Your task to perform on an android device: Open the stopwatch Image 0: 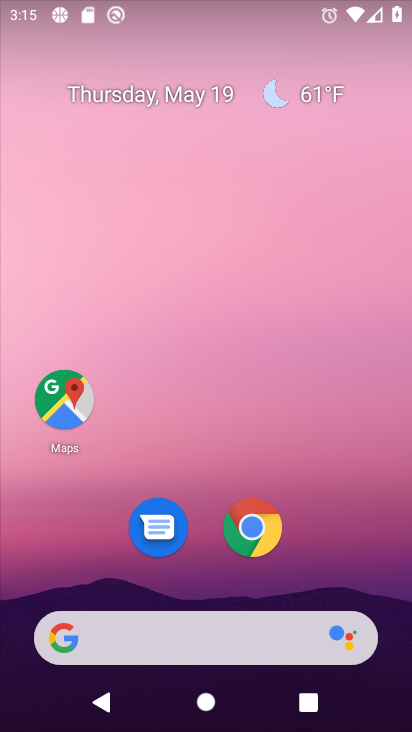
Step 0: drag from (223, 536) to (282, 37)
Your task to perform on an android device: Open the stopwatch Image 1: 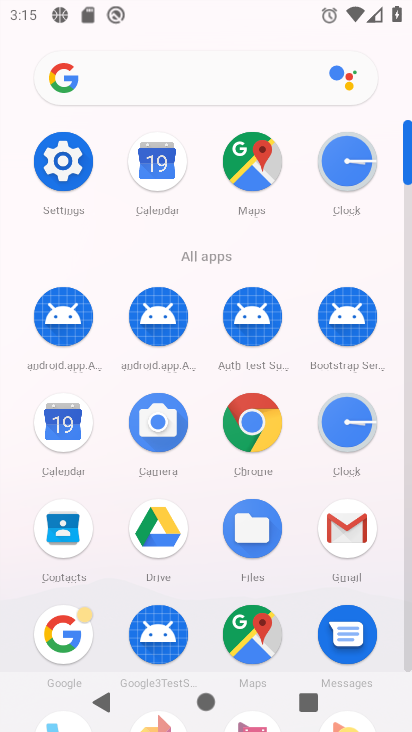
Step 1: click (350, 167)
Your task to perform on an android device: Open the stopwatch Image 2: 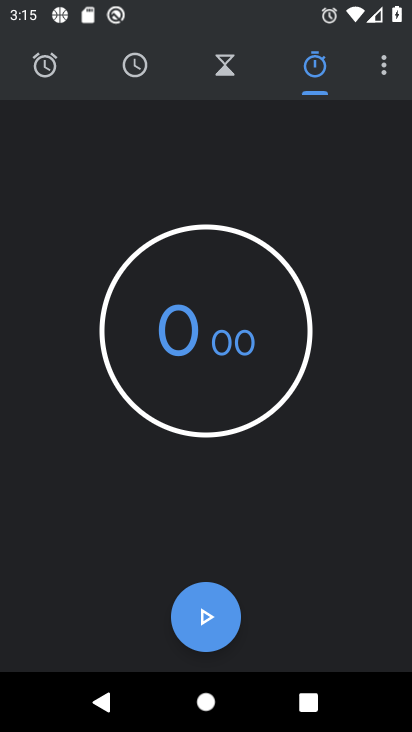
Step 2: task complete